Your task to perform on an android device: Open a new incognito window in Chrome Image 0: 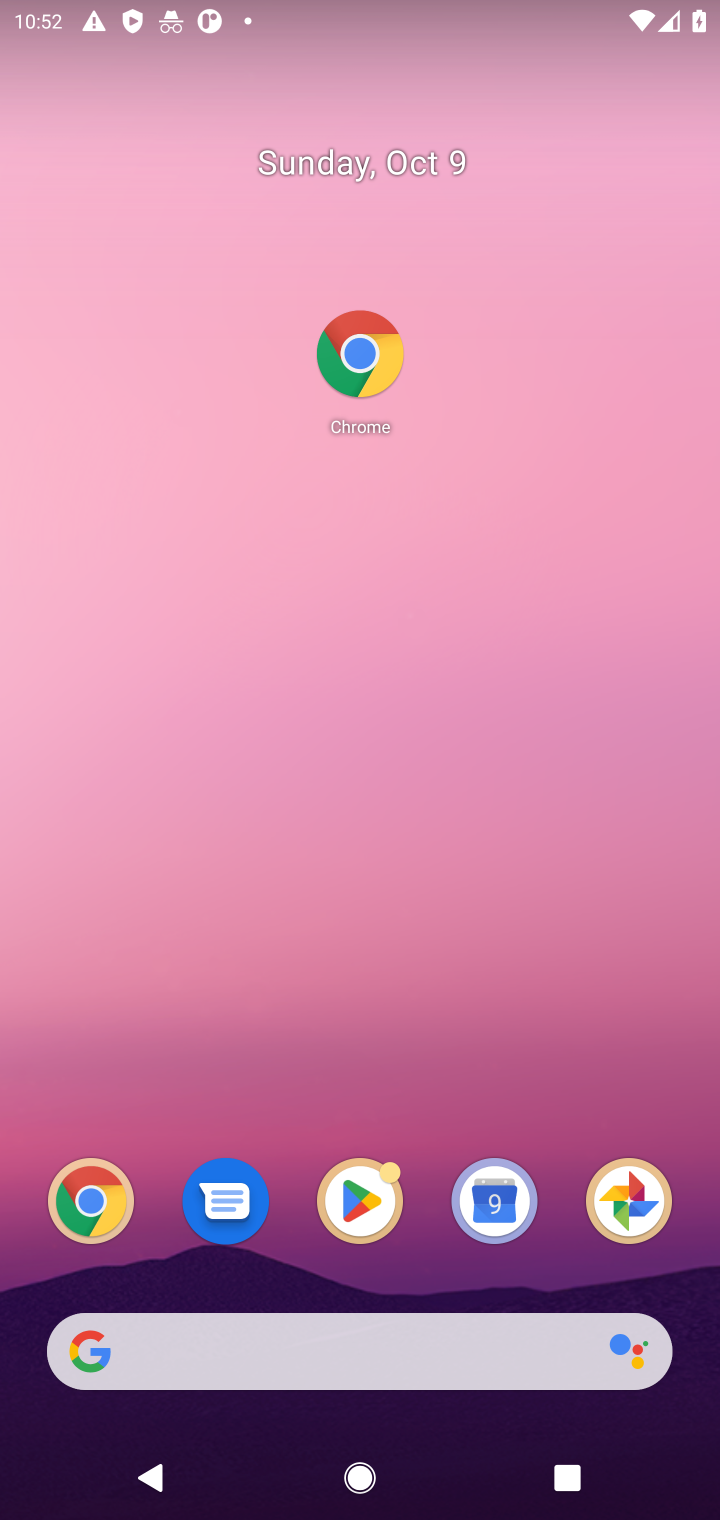
Step 0: click (341, 373)
Your task to perform on an android device: Open a new incognito window in Chrome Image 1: 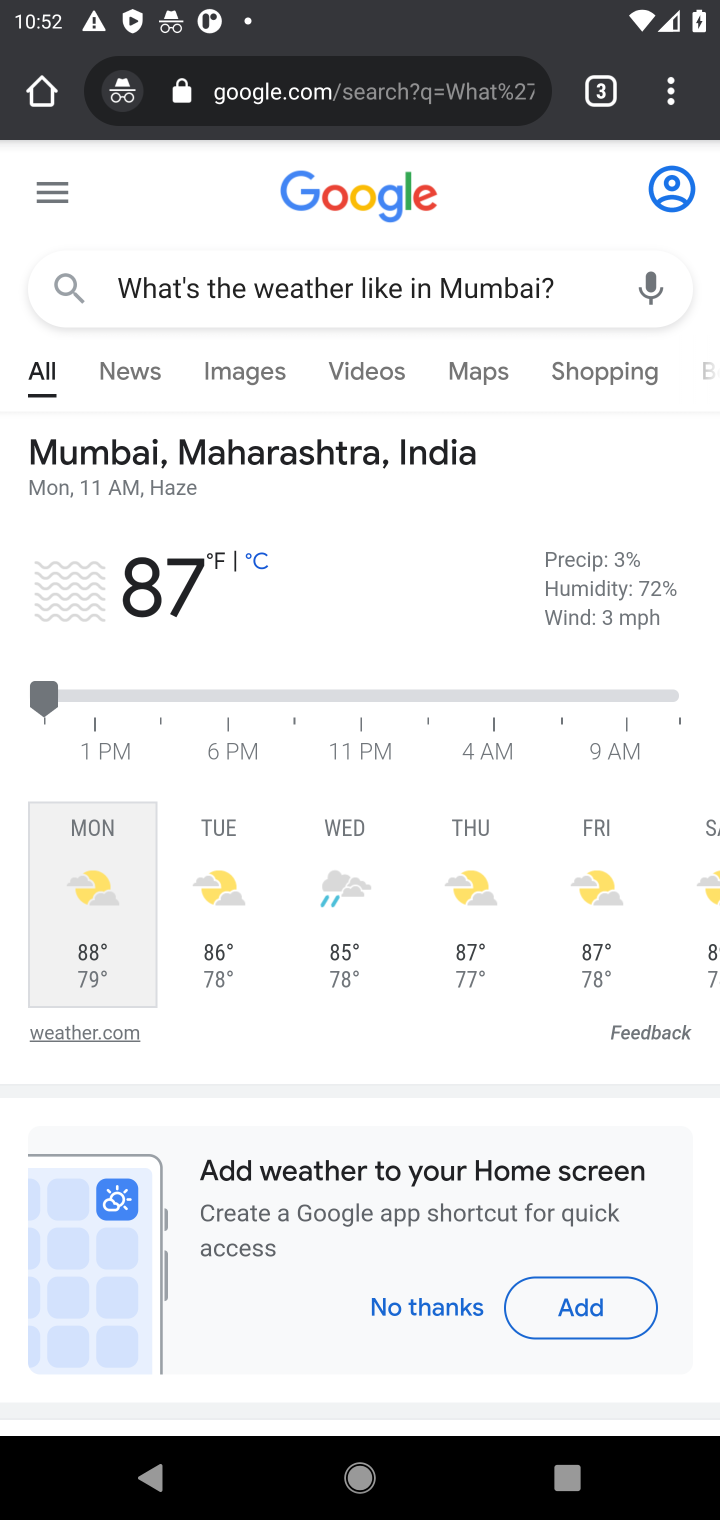
Step 1: click (403, 50)
Your task to perform on an android device: Open a new incognito window in Chrome Image 2: 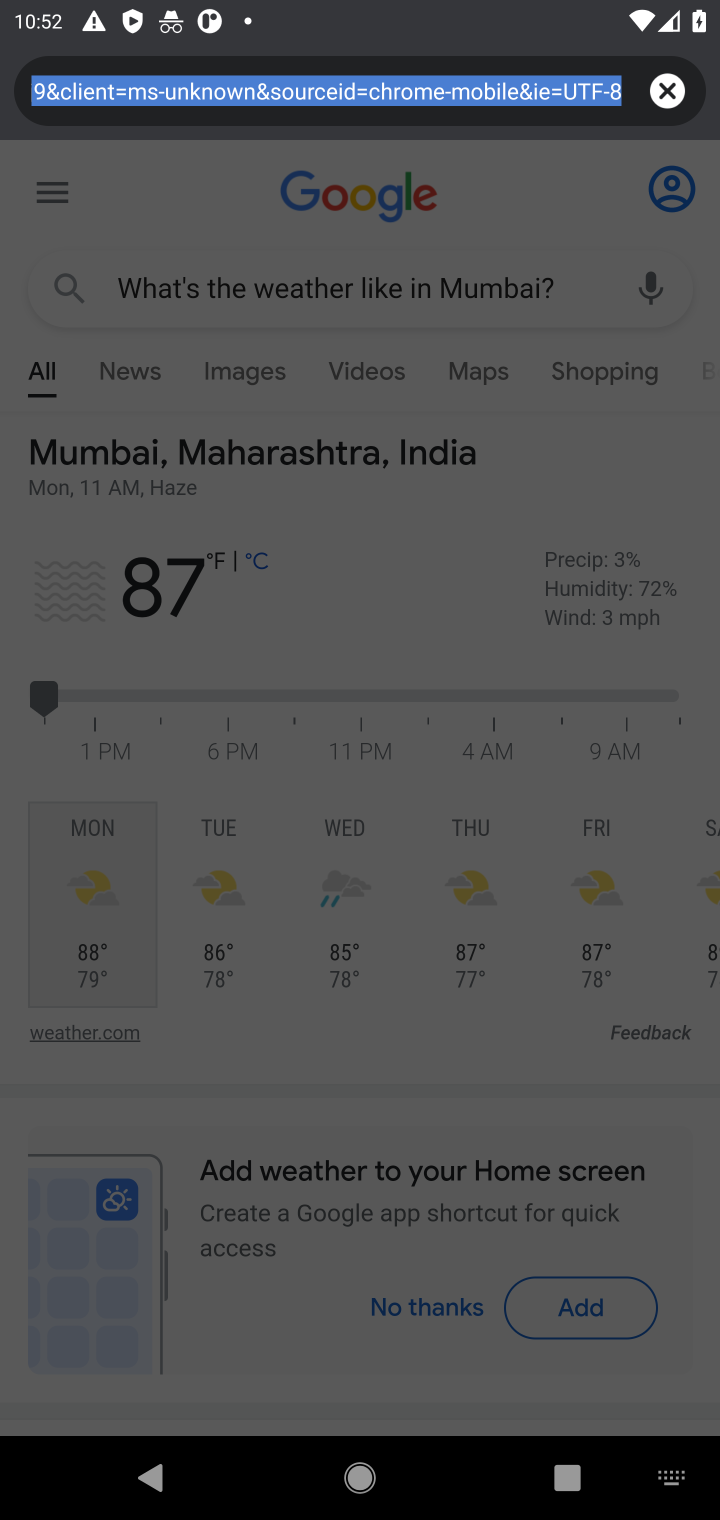
Step 2: click (517, 635)
Your task to perform on an android device: Open a new incognito window in Chrome Image 3: 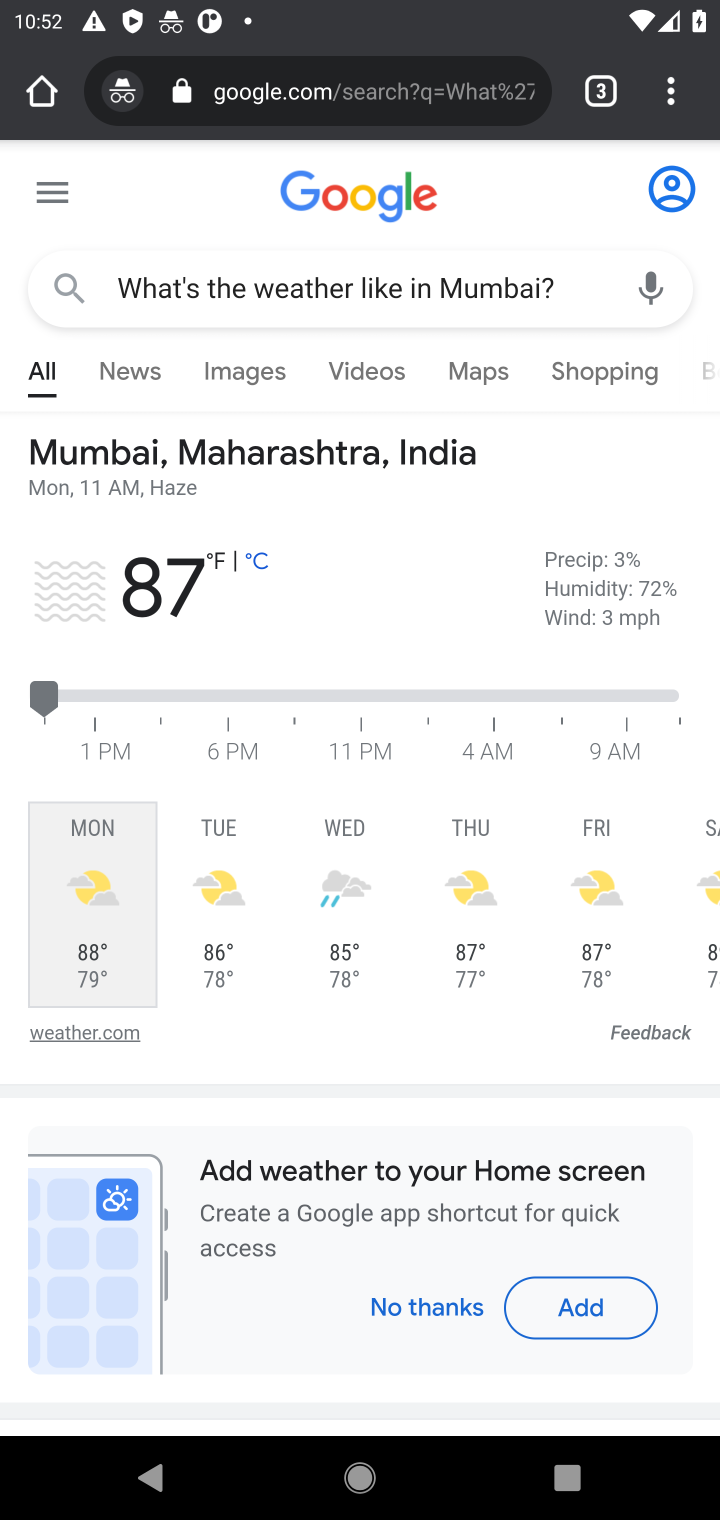
Step 3: click (668, 86)
Your task to perform on an android device: Open a new incognito window in Chrome Image 4: 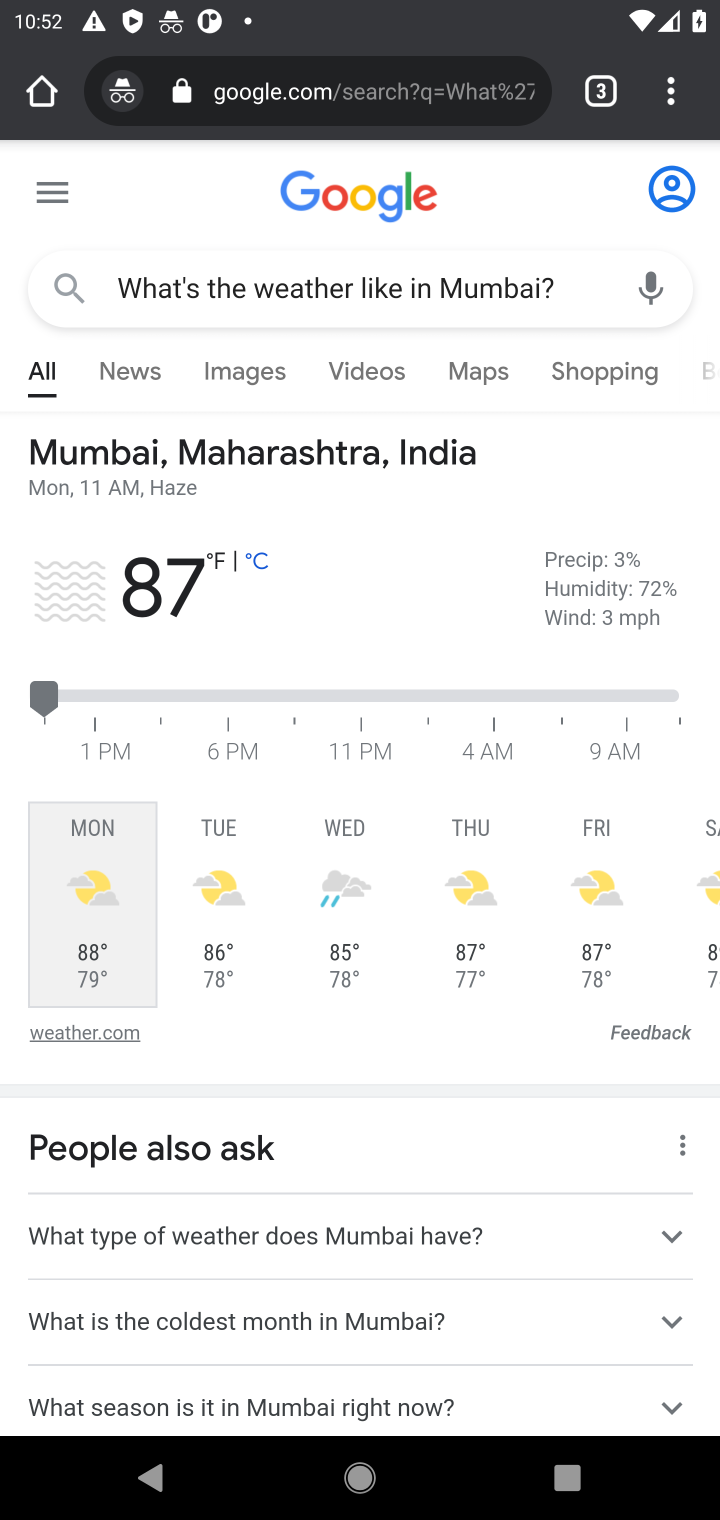
Step 4: click (668, 90)
Your task to perform on an android device: Open a new incognito window in Chrome Image 5: 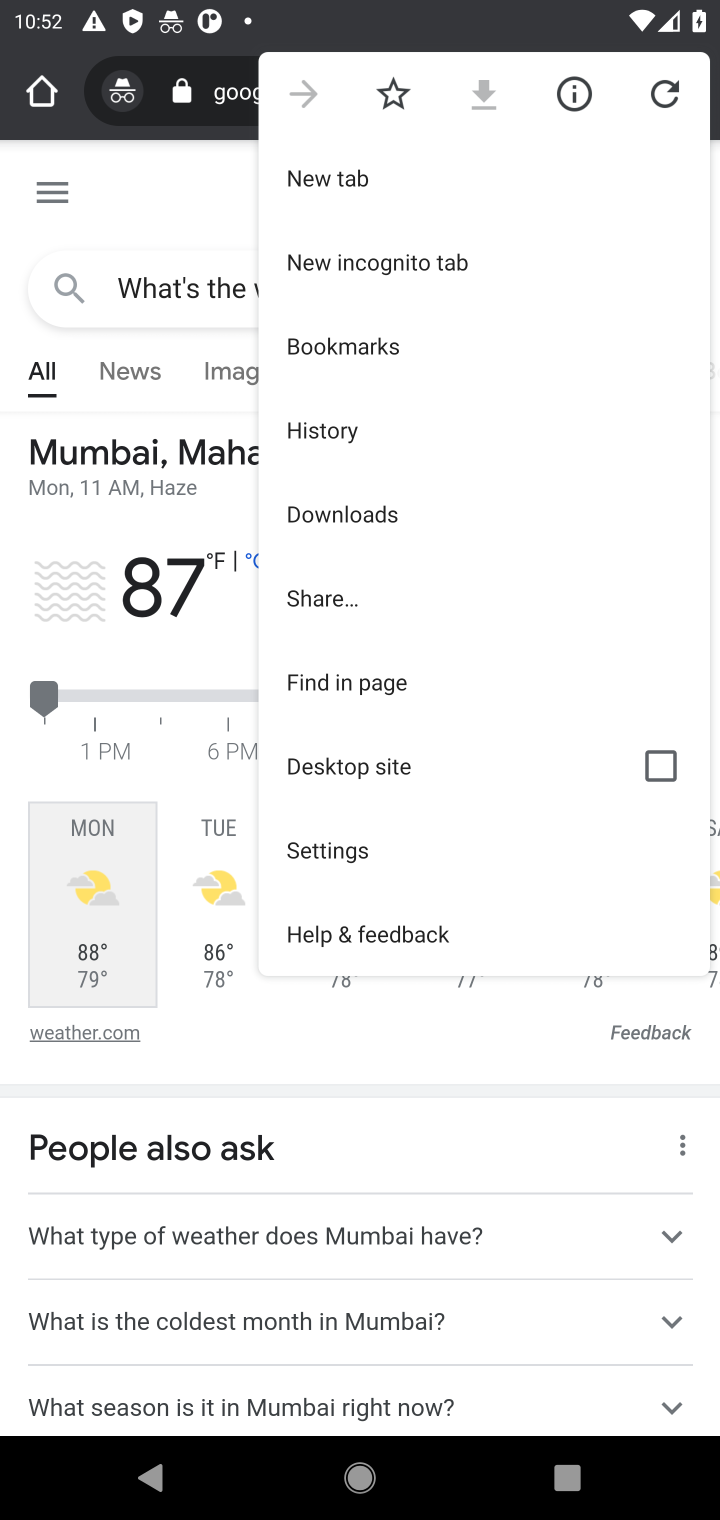
Step 5: click (427, 258)
Your task to perform on an android device: Open a new incognito window in Chrome Image 6: 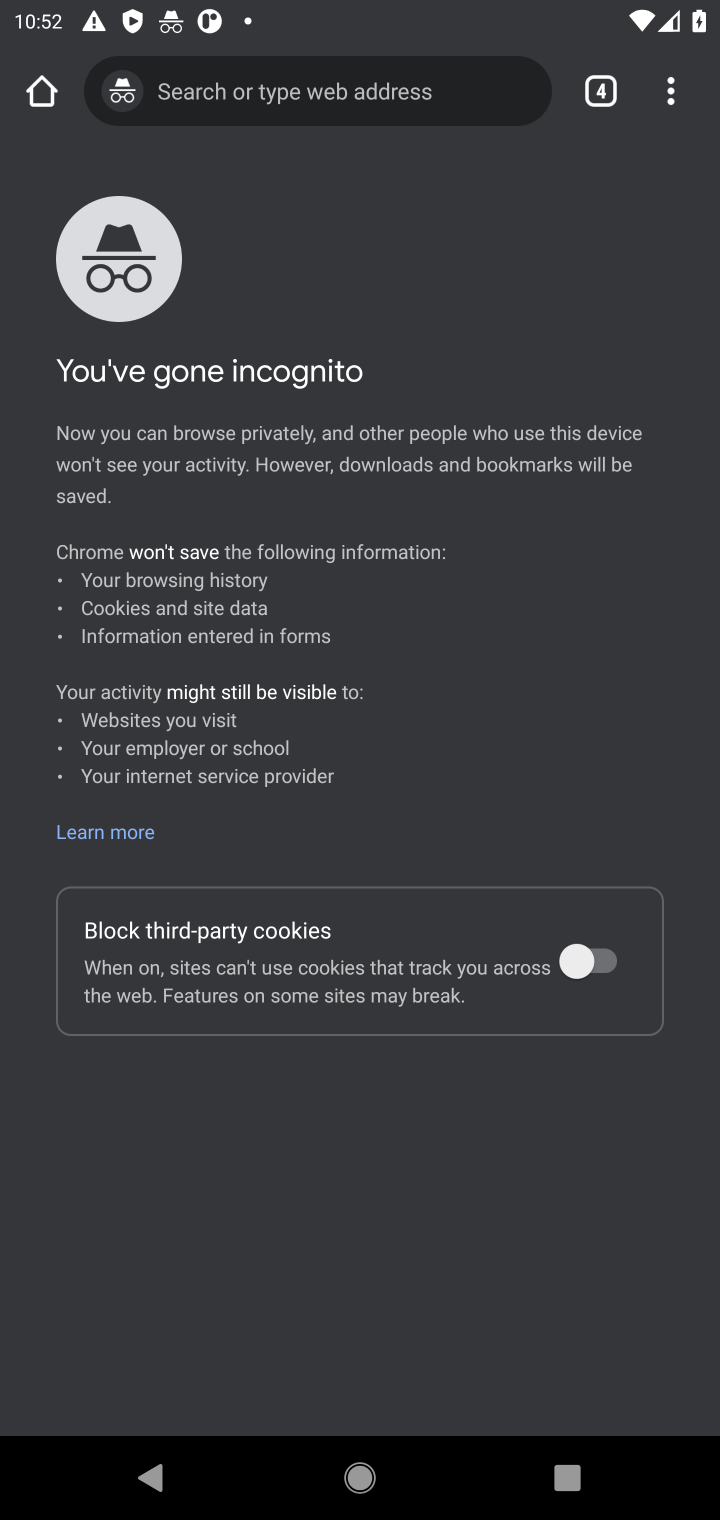
Step 6: task complete